Your task to perform on an android device: Go to settings Image 0: 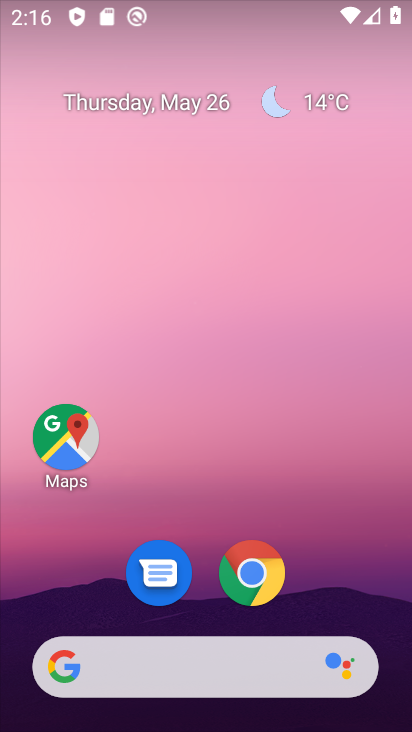
Step 0: drag from (324, 577) to (243, 19)
Your task to perform on an android device: Go to settings Image 1: 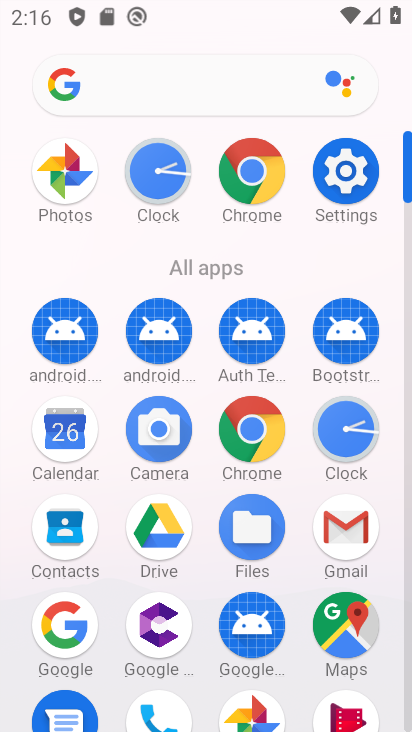
Step 1: drag from (7, 544) to (8, 258)
Your task to perform on an android device: Go to settings Image 2: 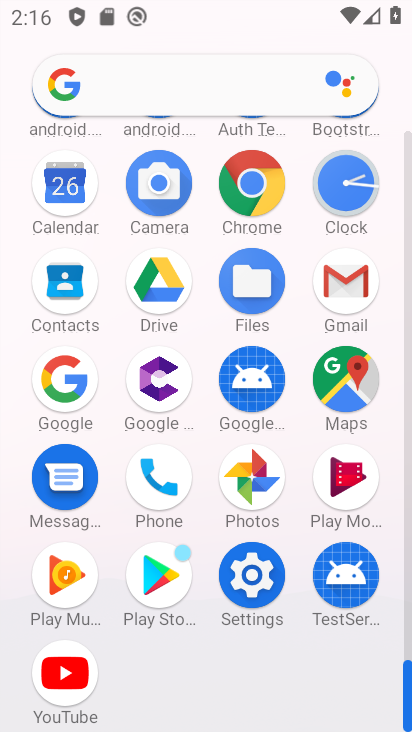
Step 2: drag from (4, 554) to (20, 292)
Your task to perform on an android device: Go to settings Image 3: 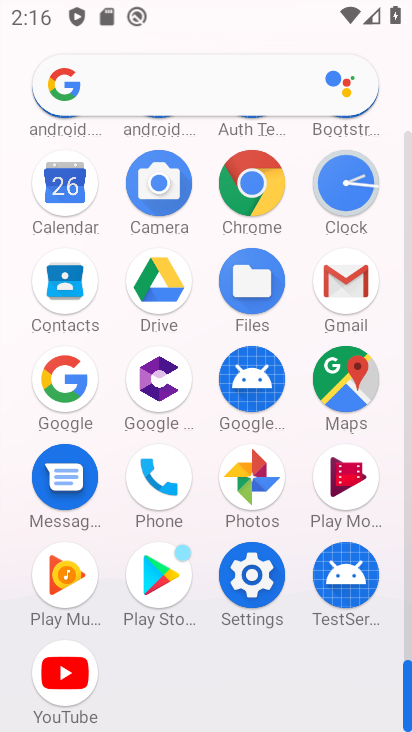
Step 3: click (249, 568)
Your task to perform on an android device: Go to settings Image 4: 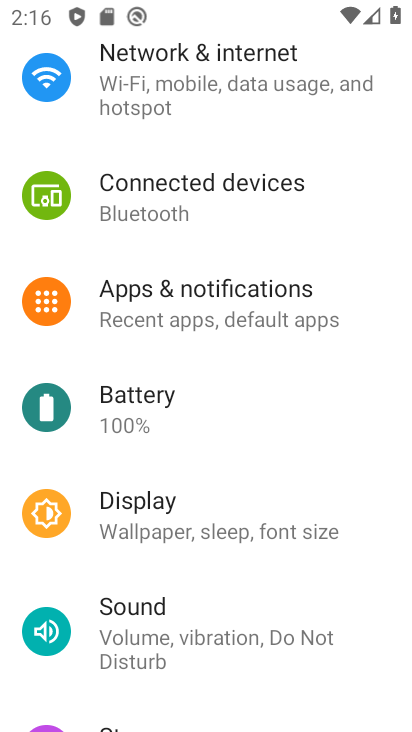
Step 4: task complete